Your task to perform on an android device: What's the weather today? Image 0: 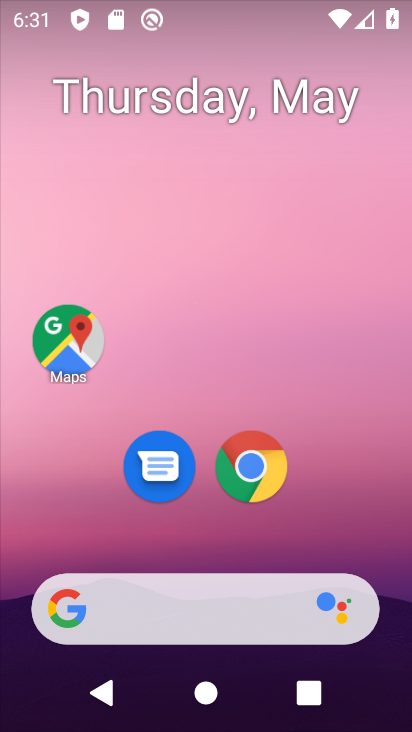
Step 0: click (212, 598)
Your task to perform on an android device: What's the weather today? Image 1: 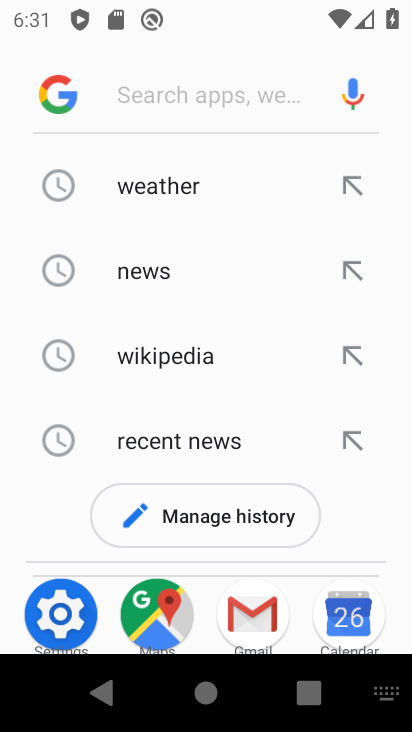
Step 1: click (166, 189)
Your task to perform on an android device: What's the weather today? Image 2: 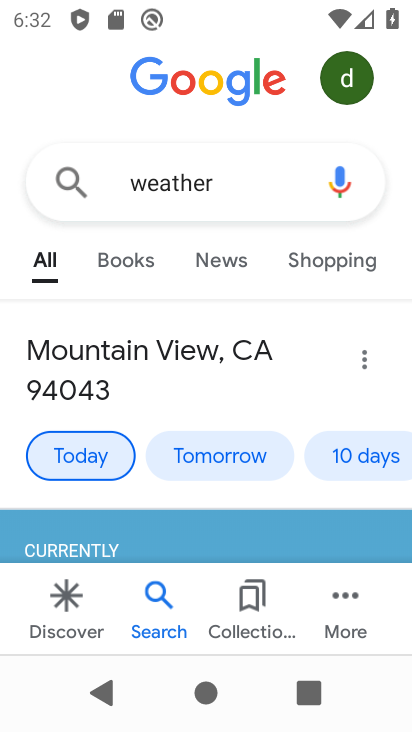
Step 2: task complete